Your task to perform on an android device: What's on my calendar tomorrow? Image 0: 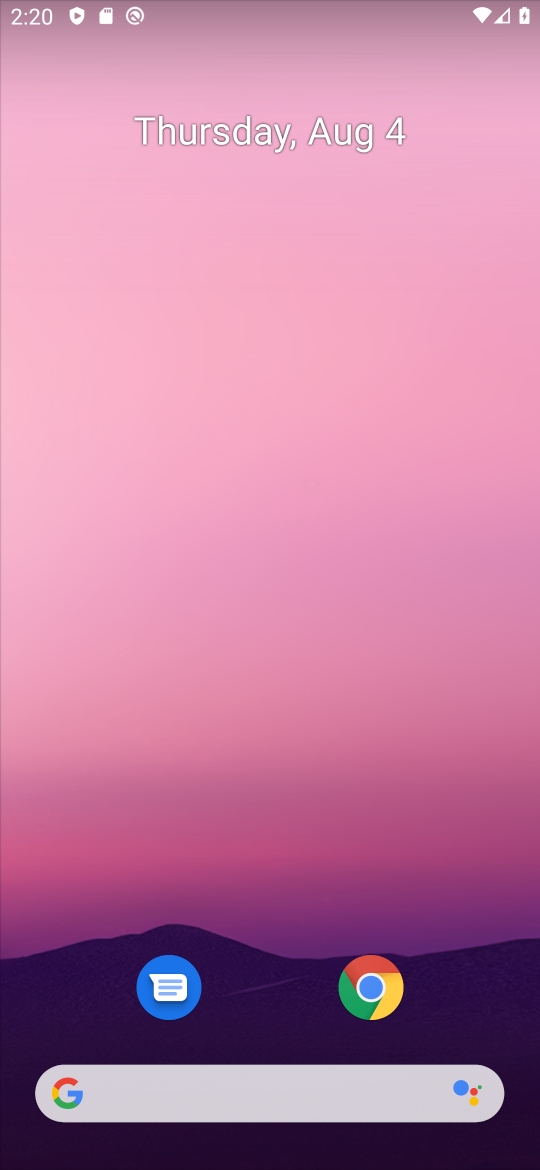
Step 0: press home button
Your task to perform on an android device: What's on my calendar tomorrow? Image 1: 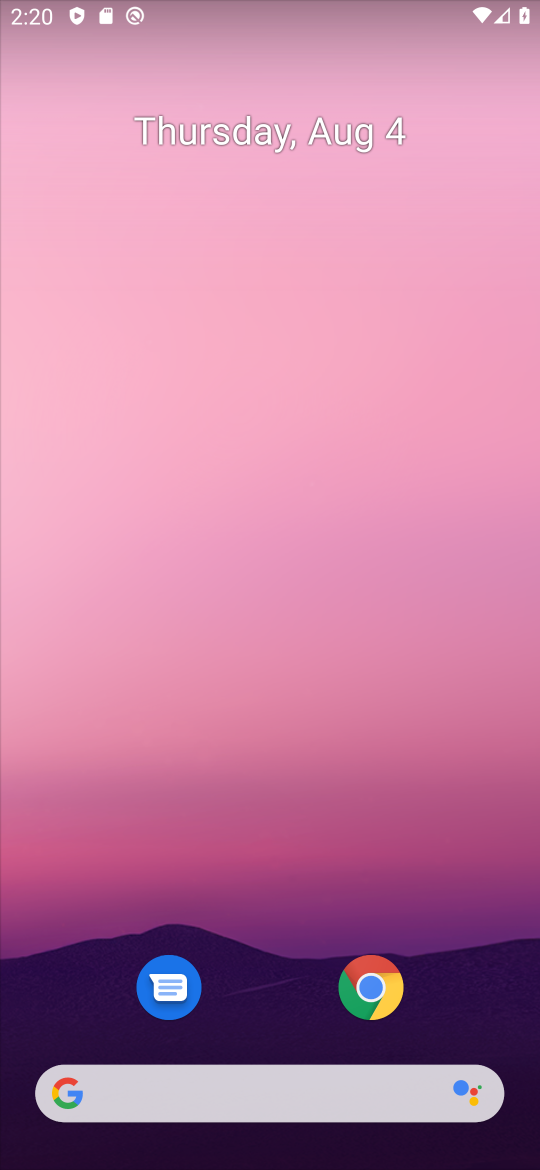
Step 1: drag from (487, 987) to (177, 96)
Your task to perform on an android device: What's on my calendar tomorrow? Image 2: 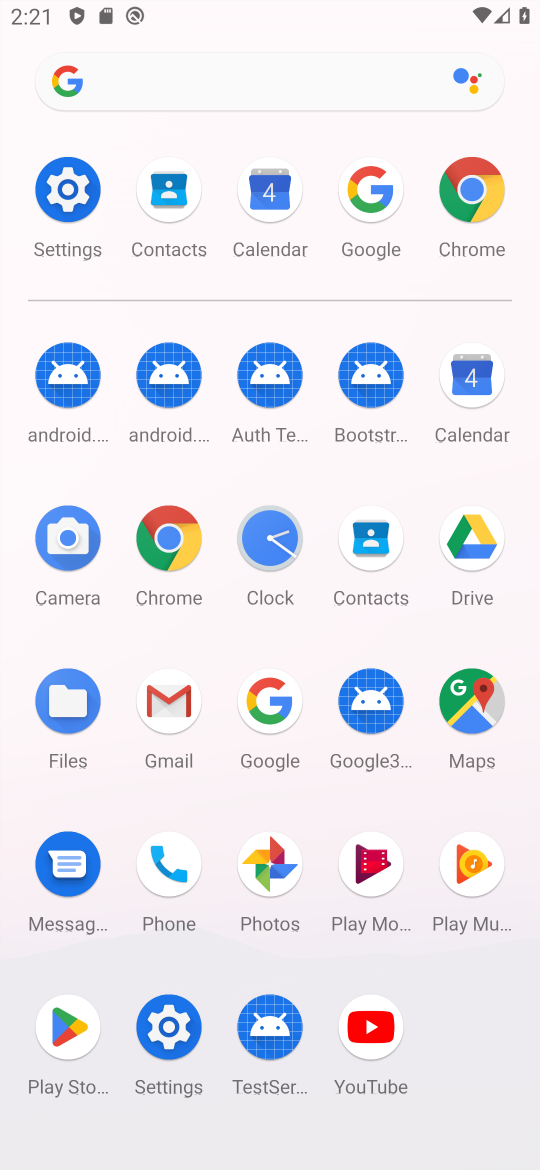
Step 2: click (480, 369)
Your task to perform on an android device: What's on my calendar tomorrow? Image 3: 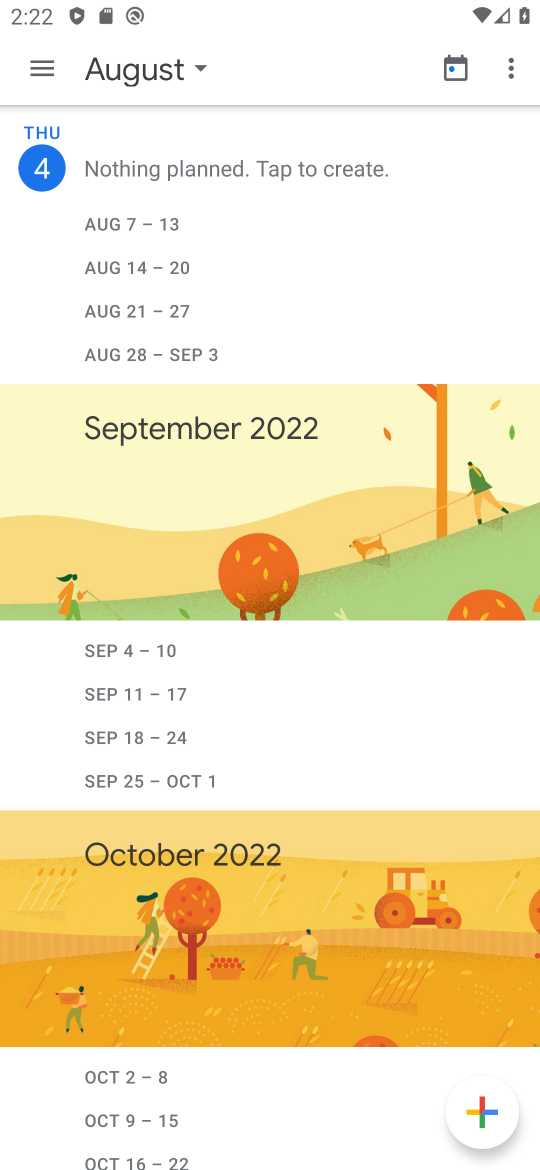
Step 3: task complete